Your task to perform on an android device: Go to notification settings Image 0: 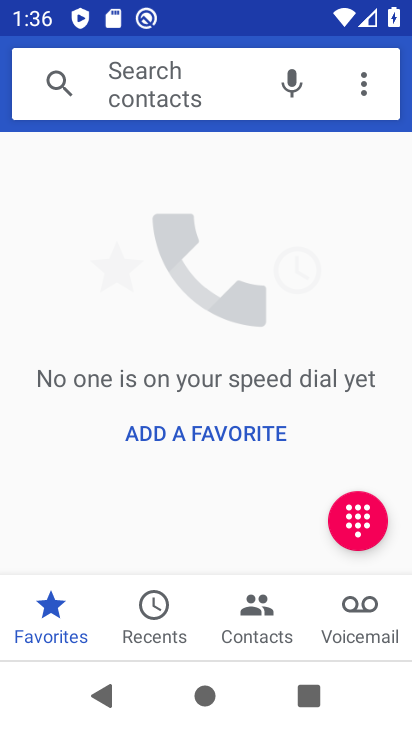
Step 0: press home button
Your task to perform on an android device: Go to notification settings Image 1: 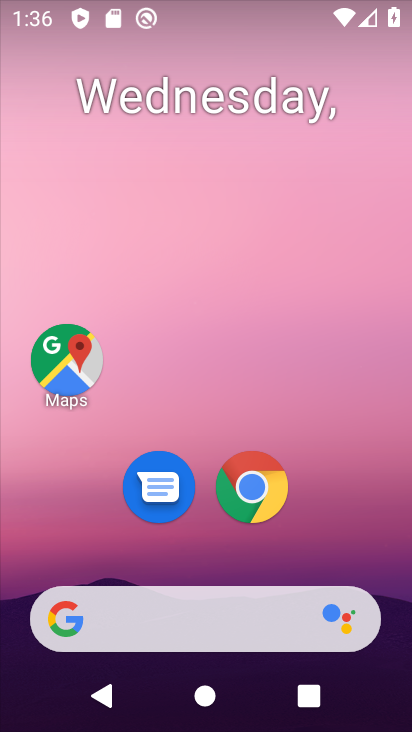
Step 1: drag from (320, 511) to (240, 88)
Your task to perform on an android device: Go to notification settings Image 2: 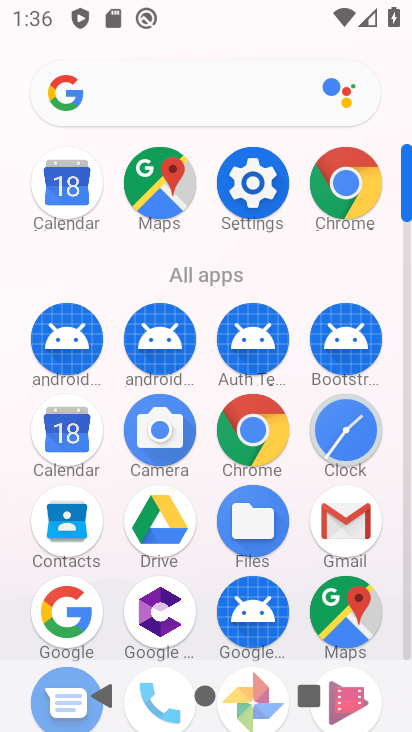
Step 2: click (254, 184)
Your task to perform on an android device: Go to notification settings Image 3: 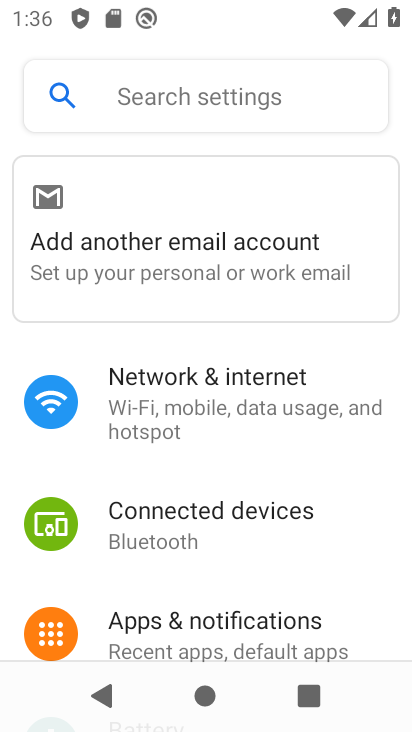
Step 3: click (219, 623)
Your task to perform on an android device: Go to notification settings Image 4: 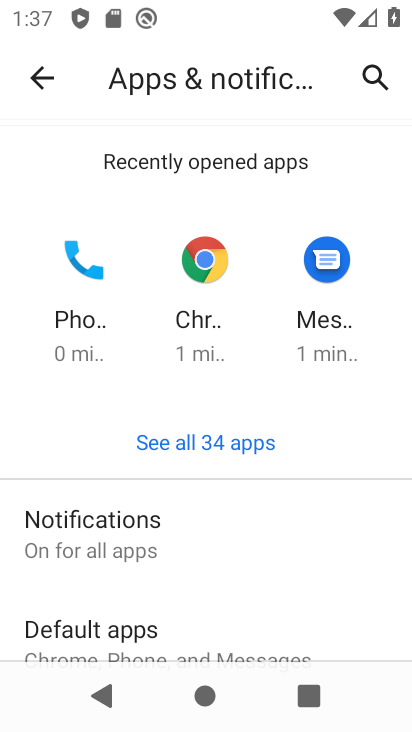
Step 4: task complete